Your task to perform on an android device: What's the weather? Image 0: 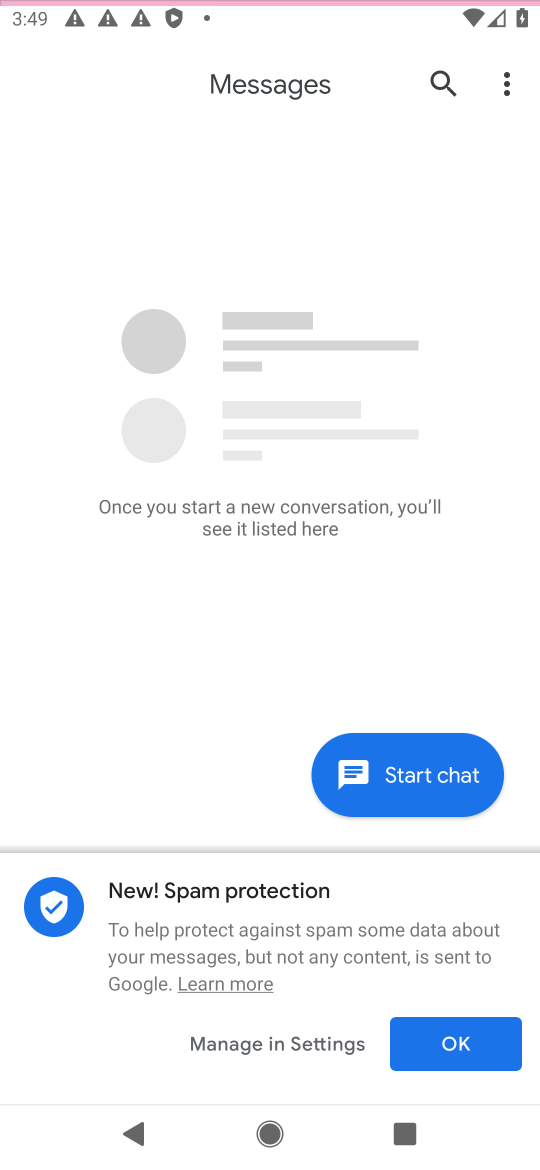
Step 0: click (429, 691)
Your task to perform on an android device: What's the weather? Image 1: 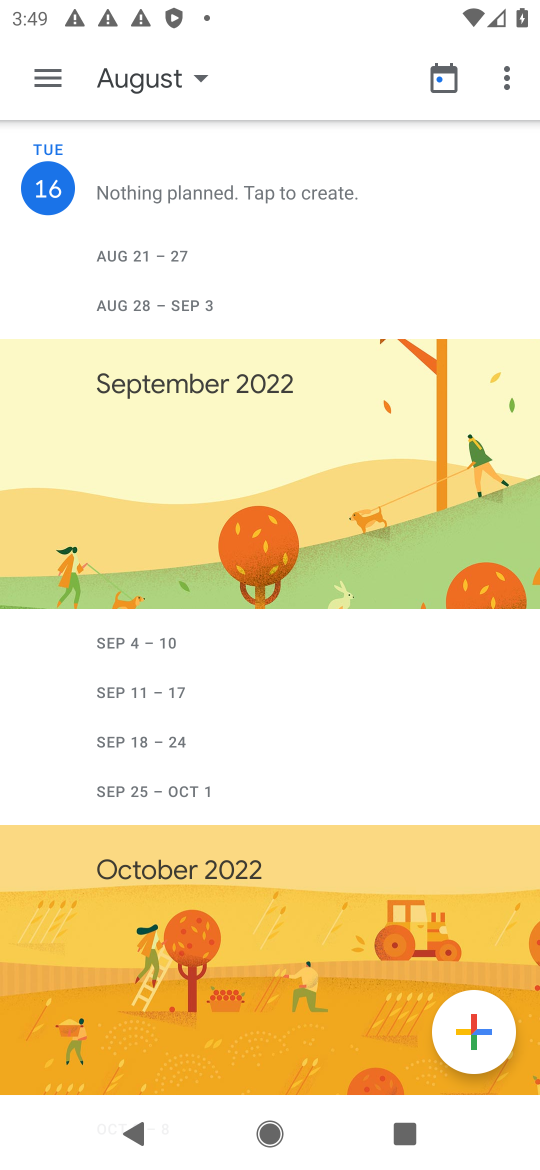
Step 1: drag from (325, 13) to (283, 497)
Your task to perform on an android device: What's the weather? Image 2: 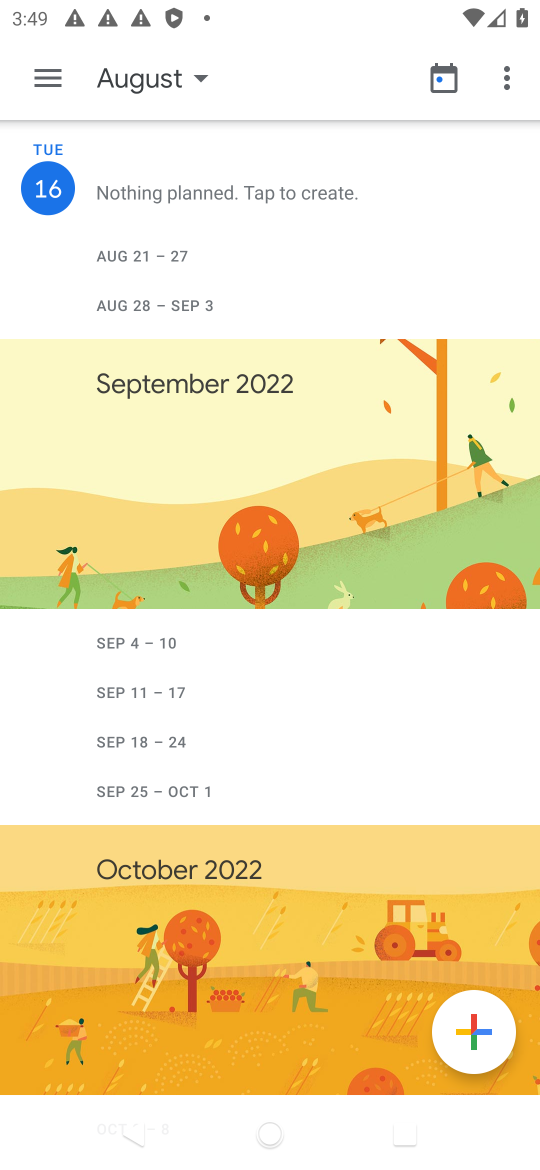
Step 2: press home button
Your task to perform on an android device: What's the weather? Image 3: 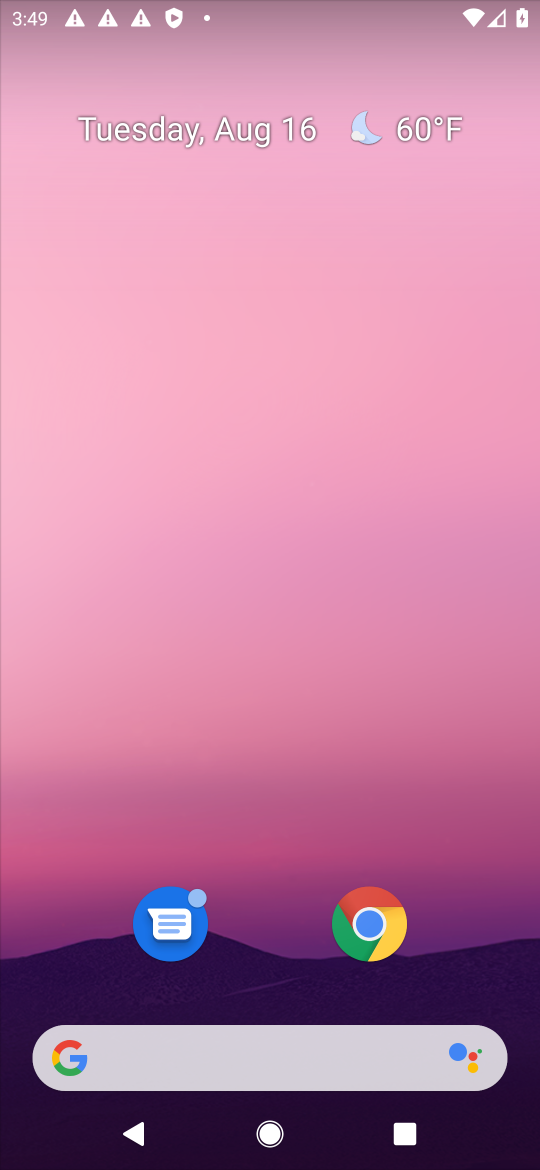
Step 3: click (243, 1046)
Your task to perform on an android device: What's the weather? Image 4: 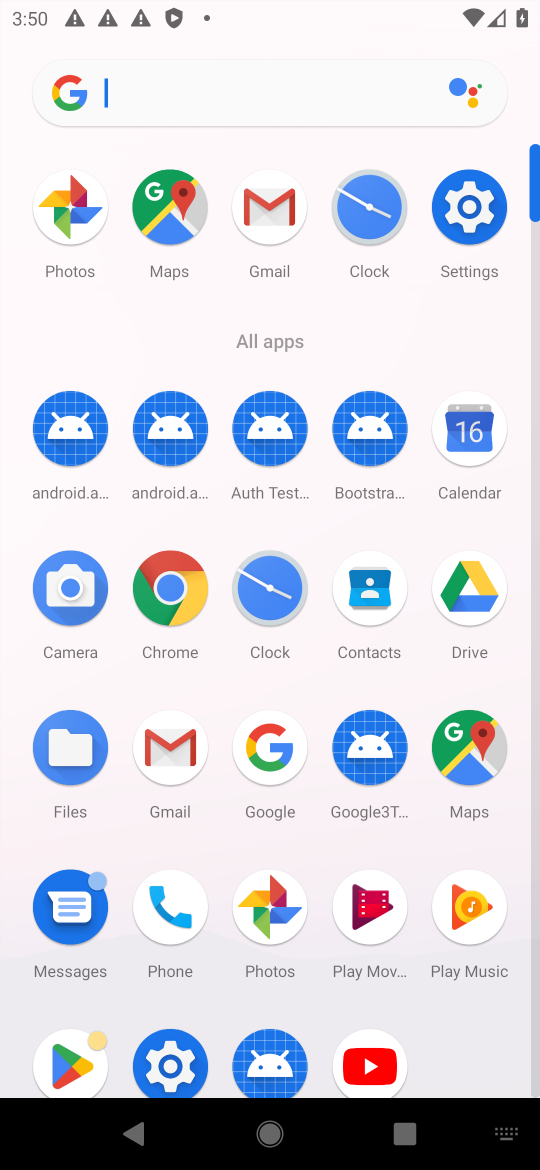
Step 4: click (201, 72)
Your task to perform on an android device: What's the weather? Image 5: 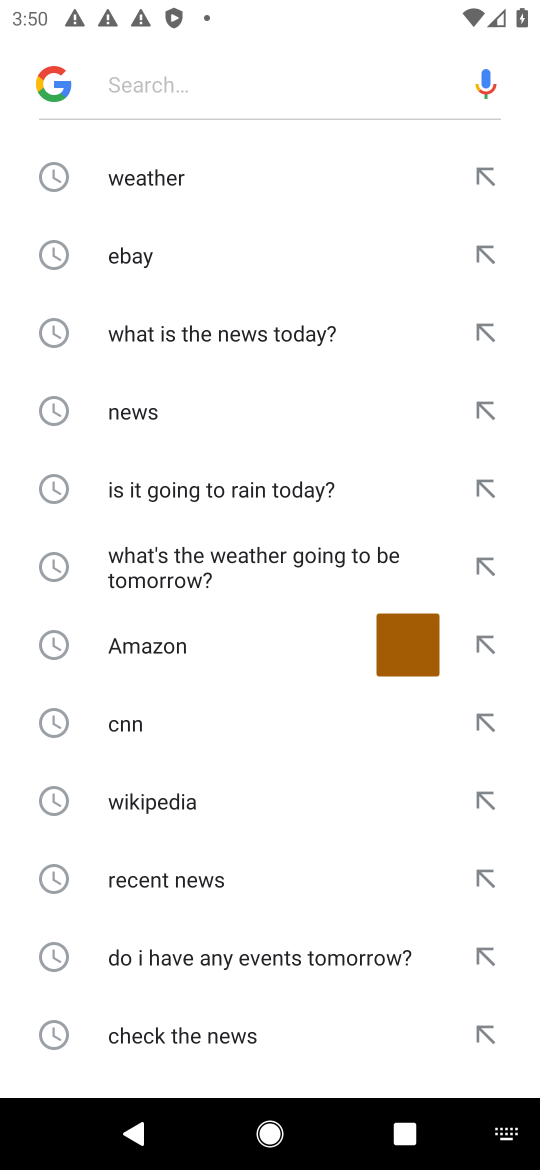
Step 5: type "weather"
Your task to perform on an android device: What's the weather? Image 6: 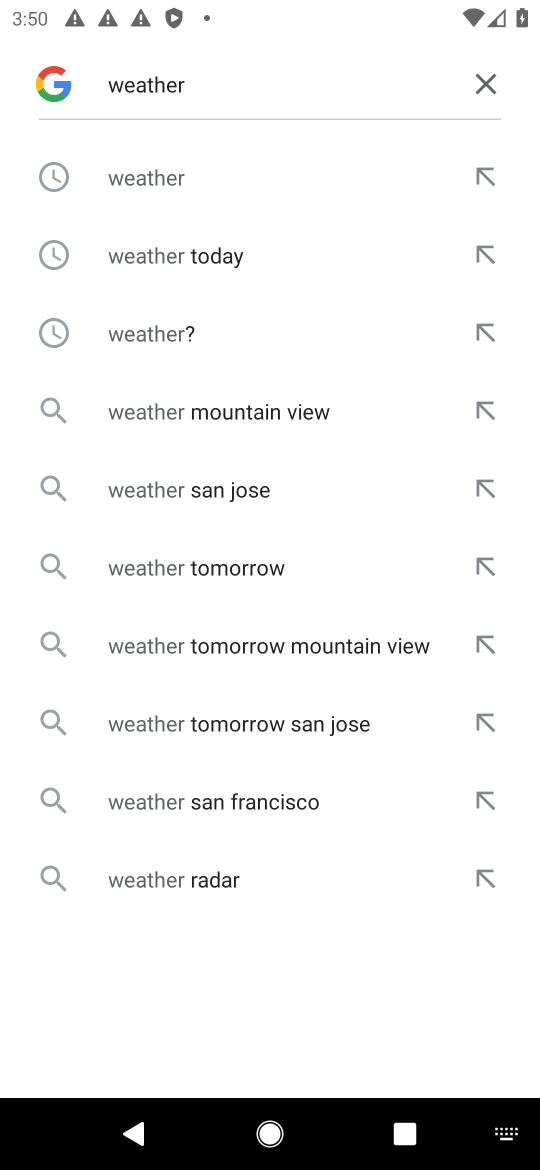
Step 6: click (343, 183)
Your task to perform on an android device: What's the weather? Image 7: 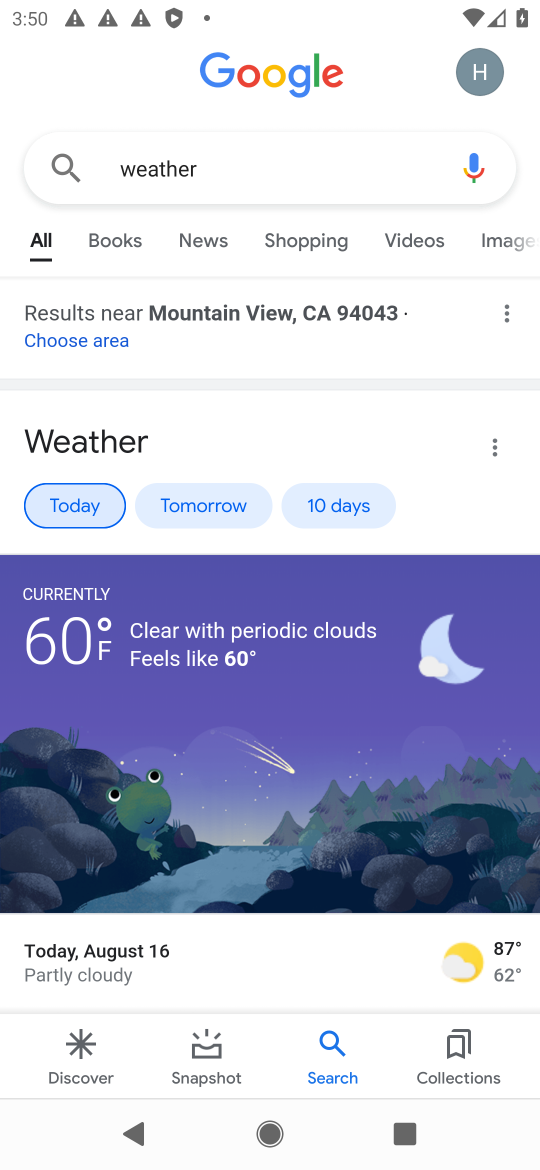
Step 7: task complete